Your task to perform on an android device: open a bookmark in the chrome app Image 0: 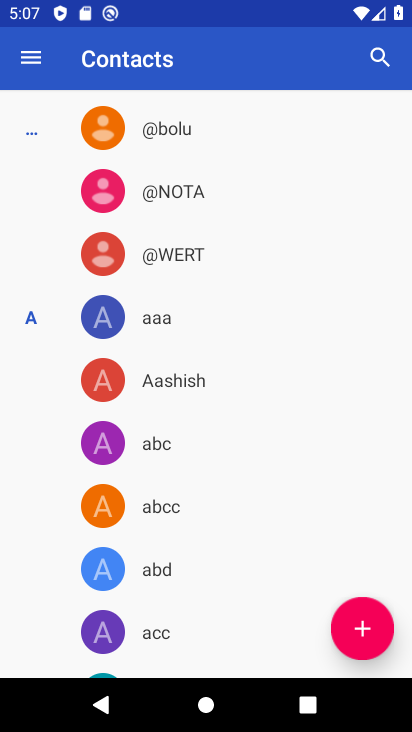
Step 0: press home button
Your task to perform on an android device: open a bookmark in the chrome app Image 1: 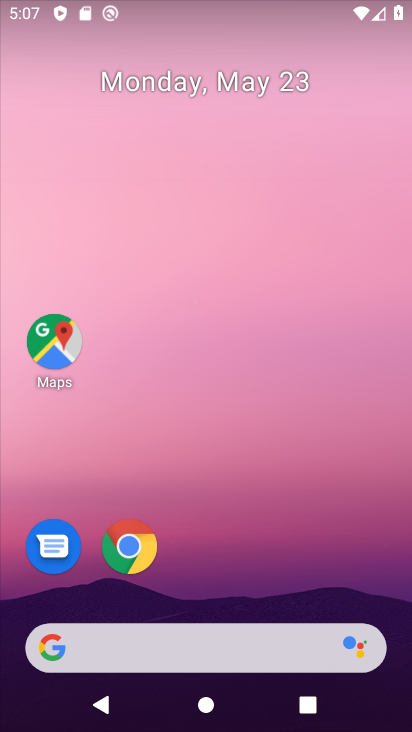
Step 1: click (140, 549)
Your task to perform on an android device: open a bookmark in the chrome app Image 2: 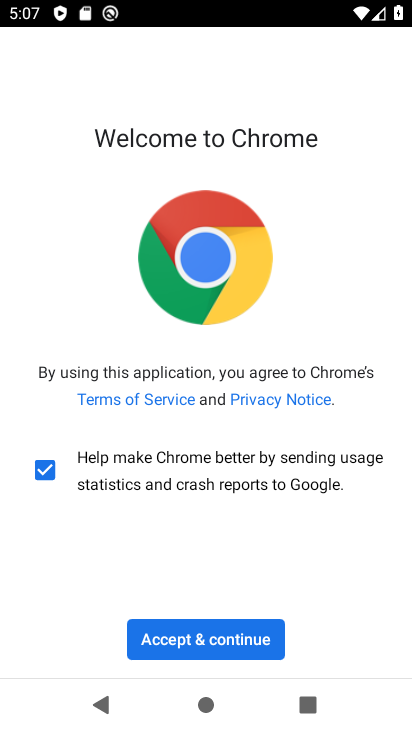
Step 2: click (255, 529)
Your task to perform on an android device: open a bookmark in the chrome app Image 3: 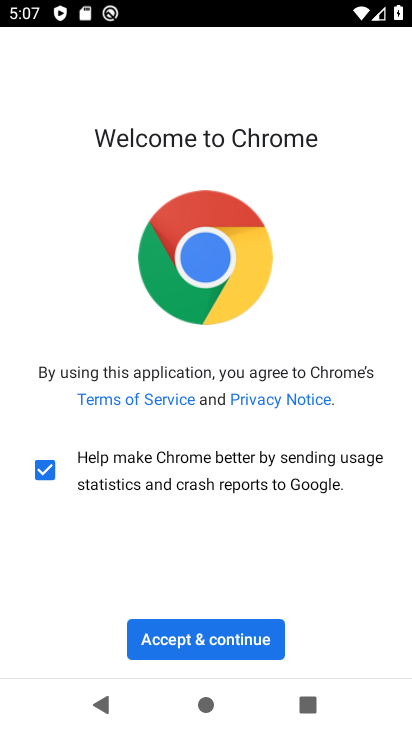
Step 3: click (242, 629)
Your task to perform on an android device: open a bookmark in the chrome app Image 4: 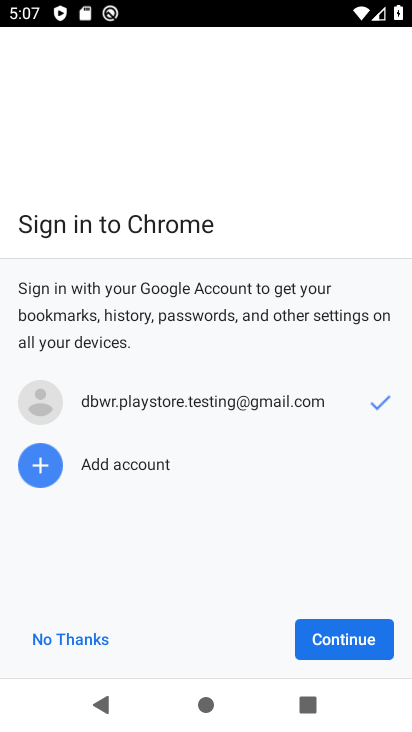
Step 4: click (340, 640)
Your task to perform on an android device: open a bookmark in the chrome app Image 5: 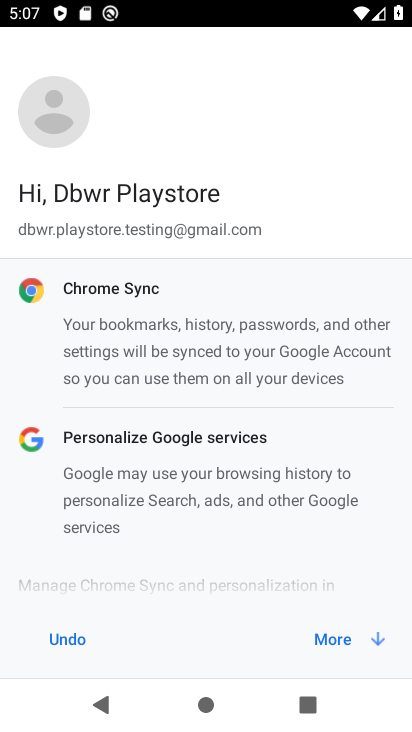
Step 5: click (340, 640)
Your task to perform on an android device: open a bookmark in the chrome app Image 6: 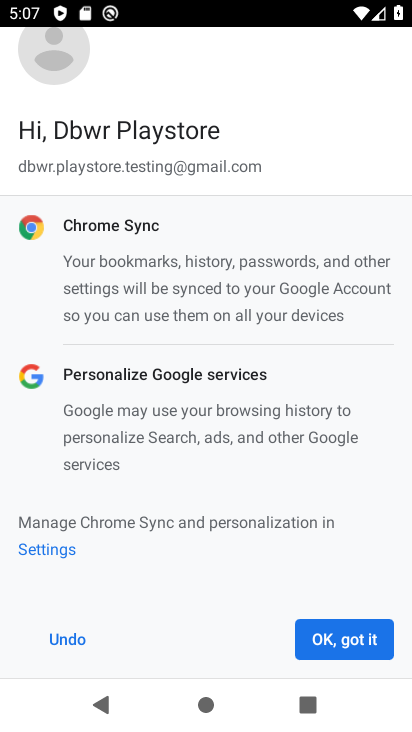
Step 6: click (340, 640)
Your task to perform on an android device: open a bookmark in the chrome app Image 7: 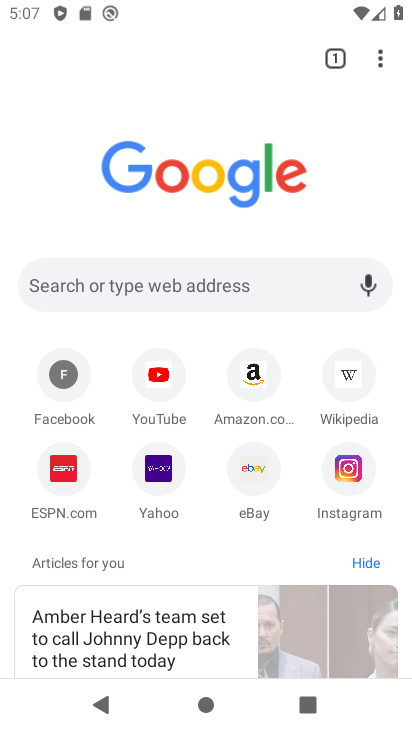
Step 7: click (383, 52)
Your task to perform on an android device: open a bookmark in the chrome app Image 8: 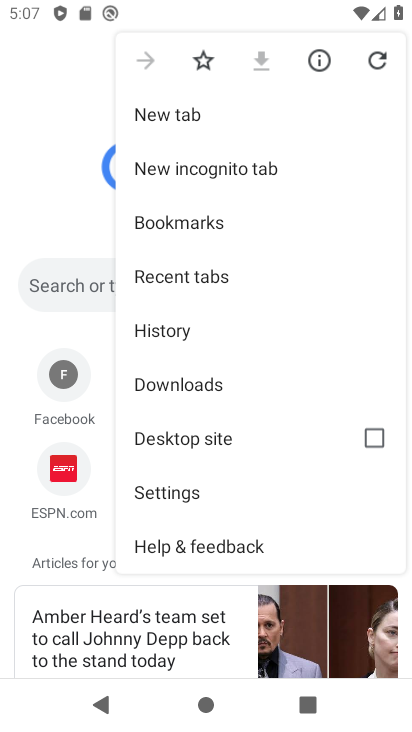
Step 8: click (205, 227)
Your task to perform on an android device: open a bookmark in the chrome app Image 9: 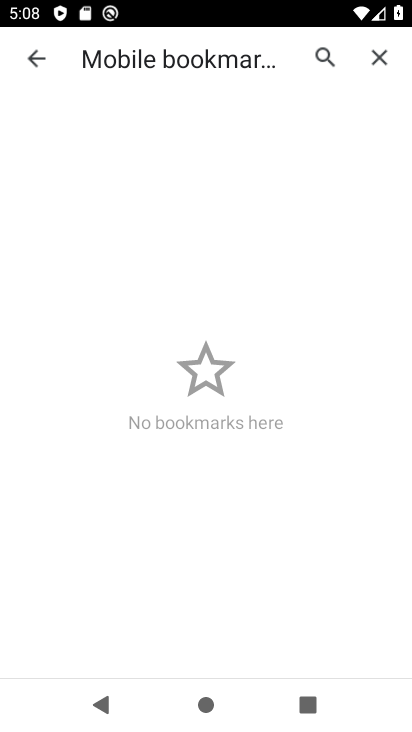
Step 9: task complete